Your task to perform on an android device: toggle priority inbox in the gmail app Image 0: 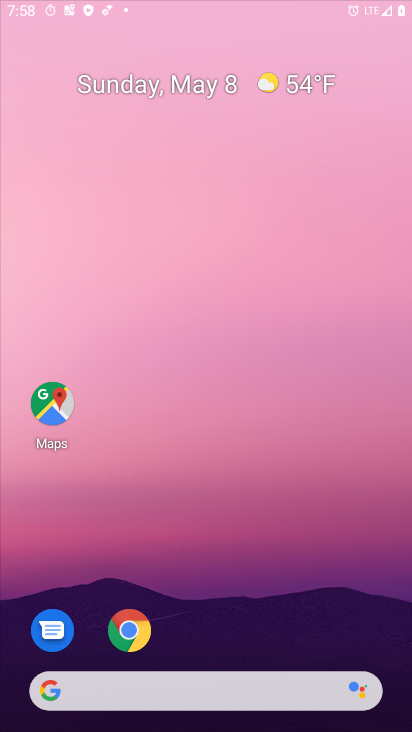
Step 0: drag from (196, 671) to (127, 18)
Your task to perform on an android device: toggle priority inbox in the gmail app Image 1: 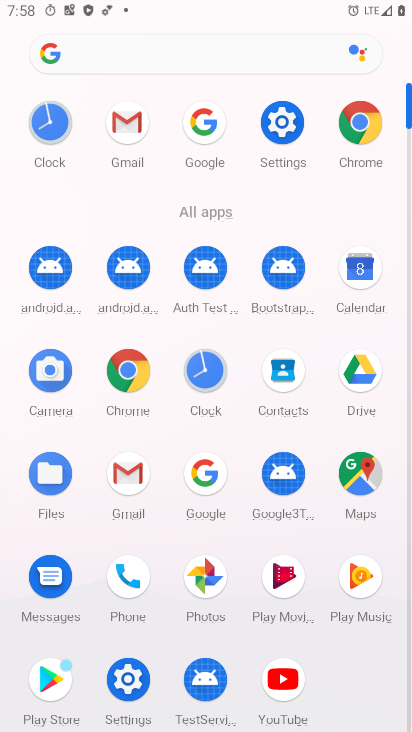
Step 1: click (141, 470)
Your task to perform on an android device: toggle priority inbox in the gmail app Image 2: 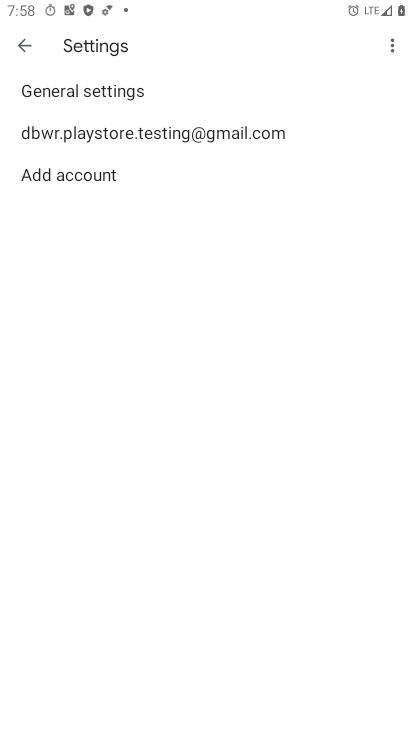
Step 2: click (26, 51)
Your task to perform on an android device: toggle priority inbox in the gmail app Image 3: 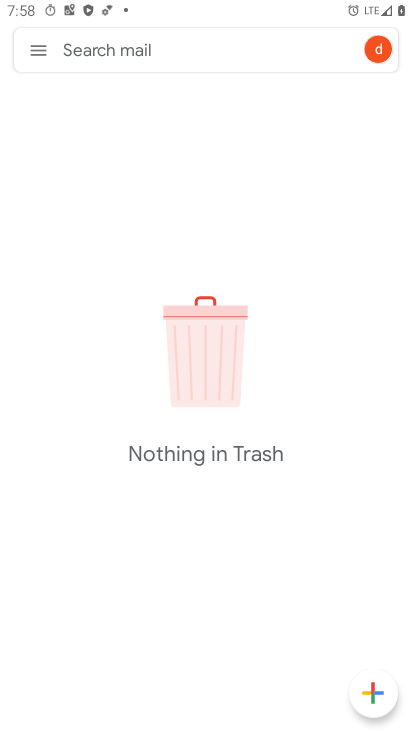
Step 3: click (25, 52)
Your task to perform on an android device: toggle priority inbox in the gmail app Image 4: 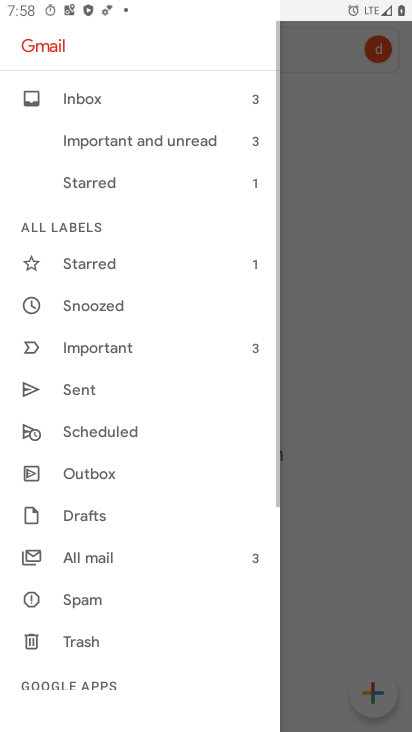
Step 4: drag from (73, 658) to (45, 103)
Your task to perform on an android device: toggle priority inbox in the gmail app Image 5: 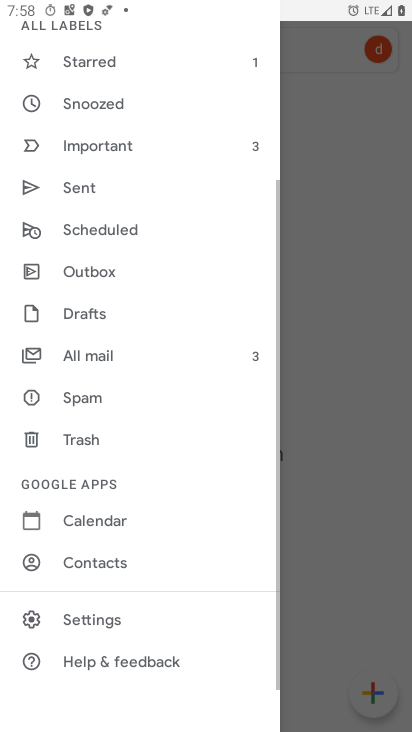
Step 5: click (70, 632)
Your task to perform on an android device: toggle priority inbox in the gmail app Image 6: 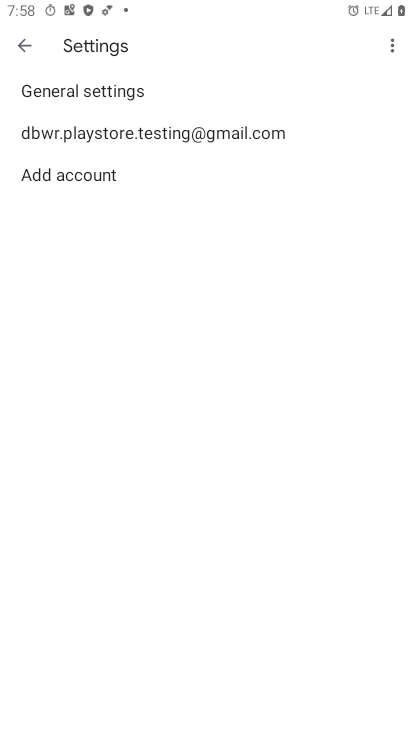
Step 6: click (91, 135)
Your task to perform on an android device: toggle priority inbox in the gmail app Image 7: 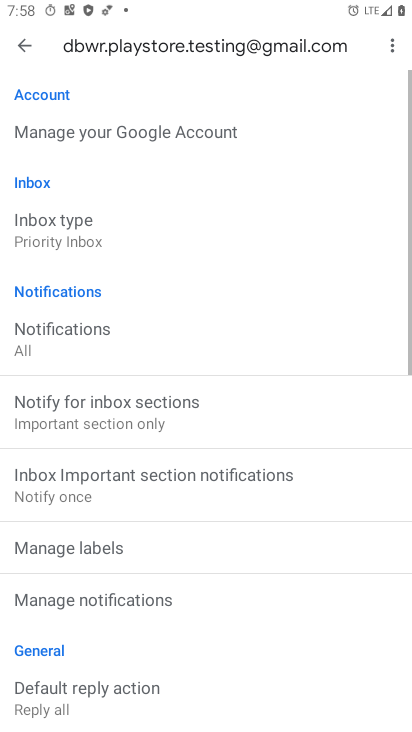
Step 7: click (74, 252)
Your task to perform on an android device: toggle priority inbox in the gmail app Image 8: 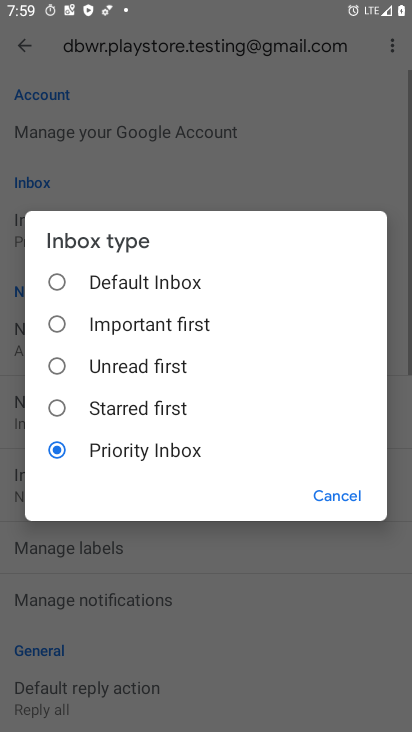
Step 8: click (137, 398)
Your task to perform on an android device: toggle priority inbox in the gmail app Image 9: 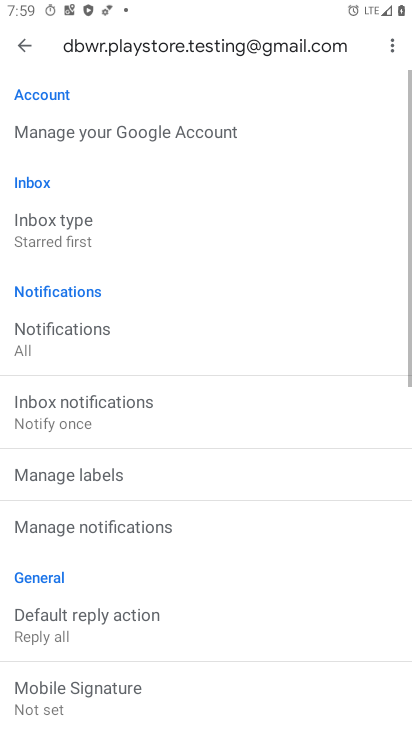
Step 9: task complete